Your task to perform on an android device: clear history in the chrome app Image 0: 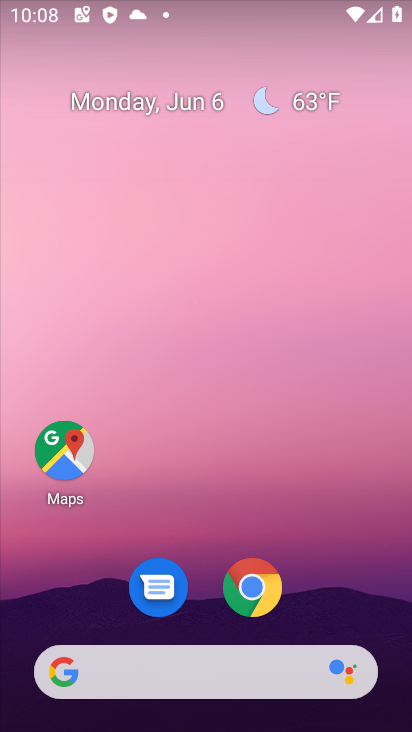
Step 0: drag from (193, 483) to (219, 287)
Your task to perform on an android device: clear history in the chrome app Image 1: 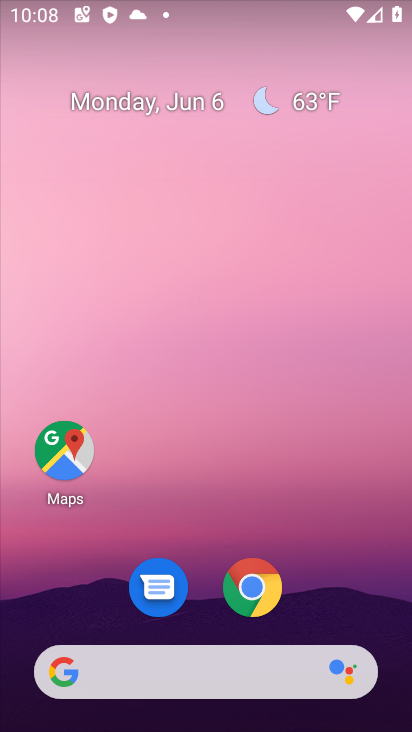
Step 1: click (251, 590)
Your task to perform on an android device: clear history in the chrome app Image 2: 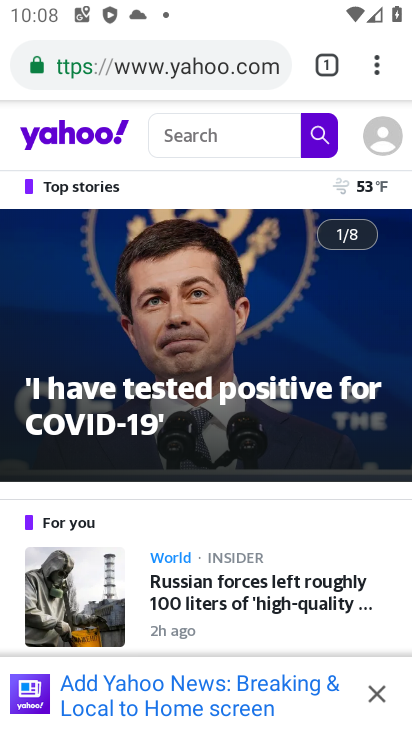
Step 2: click (377, 64)
Your task to perform on an android device: clear history in the chrome app Image 3: 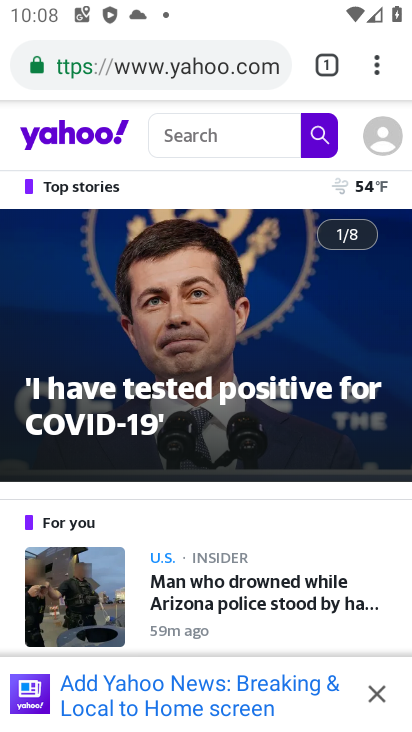
Step 3: click (383, 701)
Your task to perform on an android device: clear history in the chrome app Image 4: 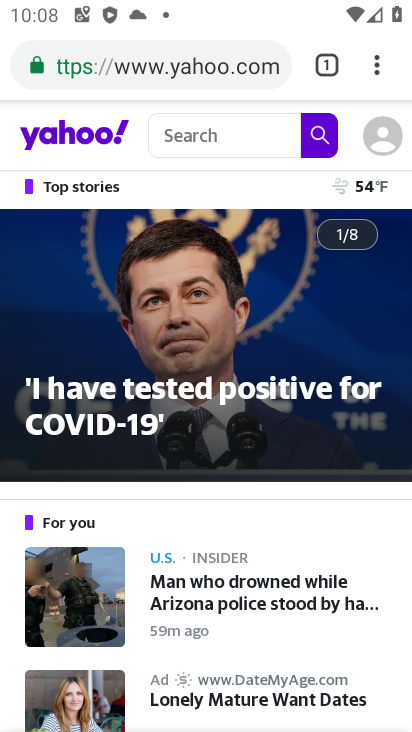
Step 4: drag from (243, 667) to (224, 326)
Your task to perform on an android device: clear history in the chrome app Image 5: 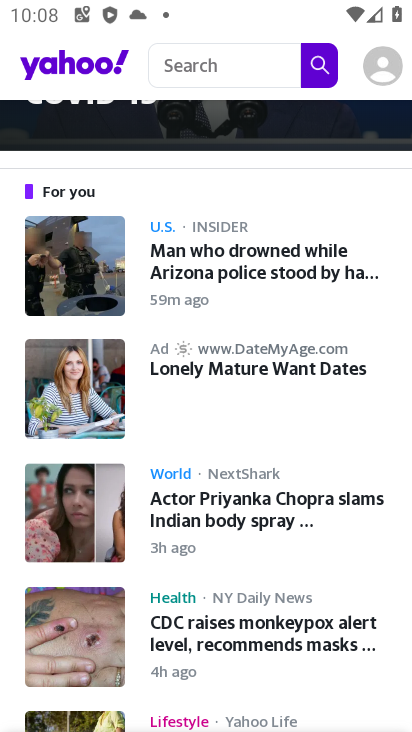
Step 5: drag from (312, 161) to (312, 611)
Your task to perform on an android device: clear history in the chrome app Image 6: 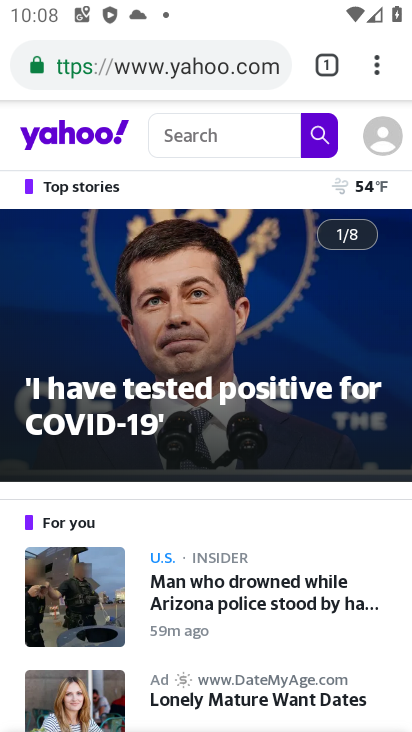
Step 6: click (375, 72)
Your task to perform on an android device: clear history in the chrome app Image 7: 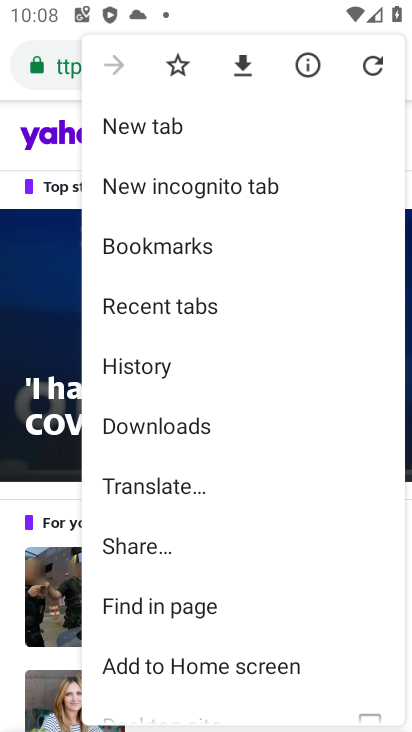
Step 7: drag from (202, 651) to (202, 233)
Your task to perform on an android device: clear history in the chrome app Image 8: 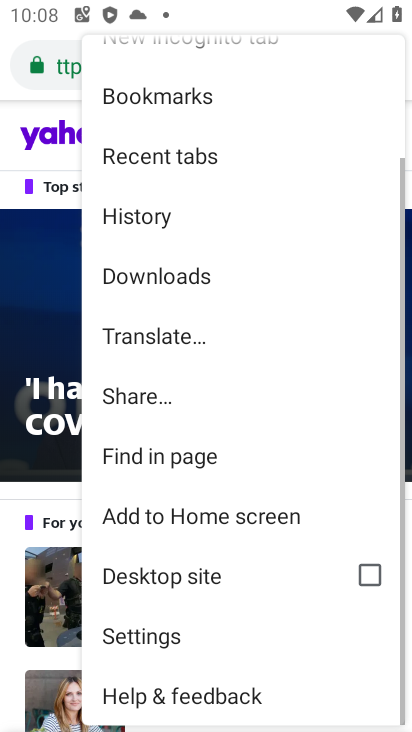
Step 8: click (140, 637)
Your task to perform on an android device: clear history in the chrome app Image 9: 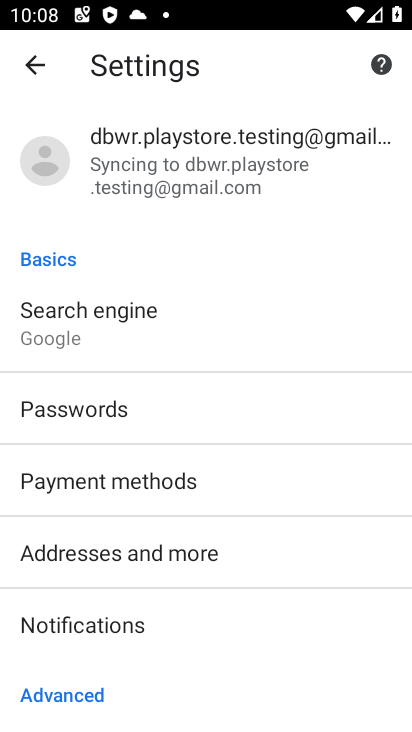
Step 9: drag from (198, 679) to (226, 299)
Your task to perform on an android device: clear history in the chrome app Image 10: 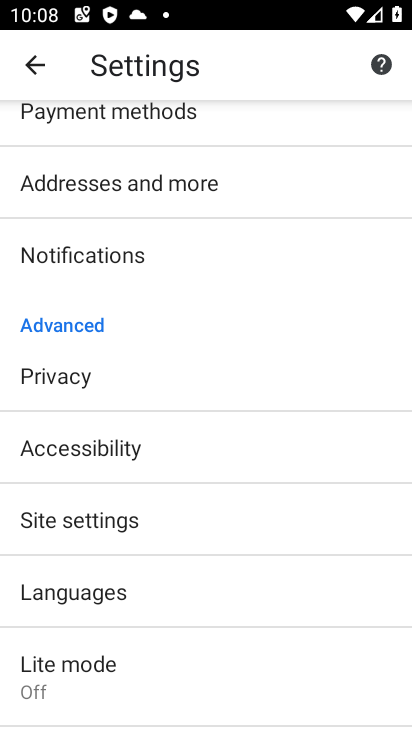
Step 10: click (87, 376)
Your task to perform on an android device: clear history in the chrome app Image 11: 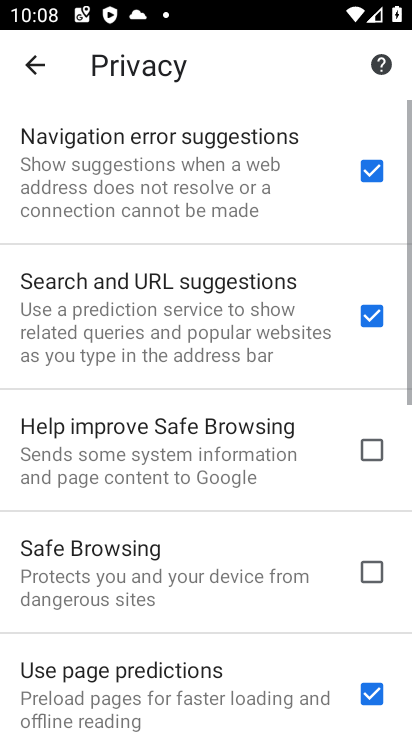
Step 11: drag from (194, 682) to (199, 338)
Your task to perform on an android device: clear history in the chrome app Image 12: 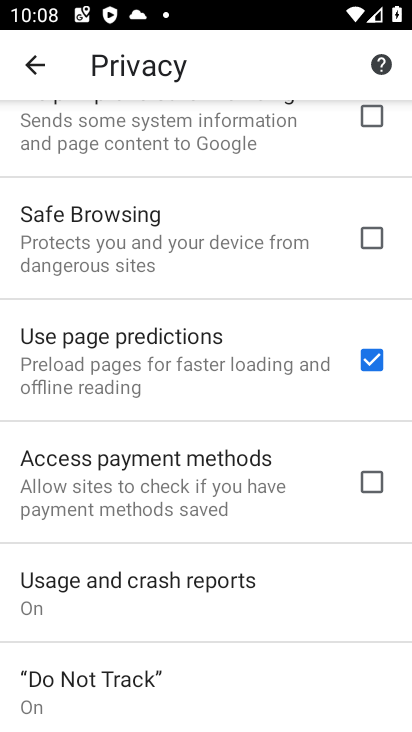
Step 12: click (127, 693)
Your task to perform on an android device: clear history in the chrome app Image 13: 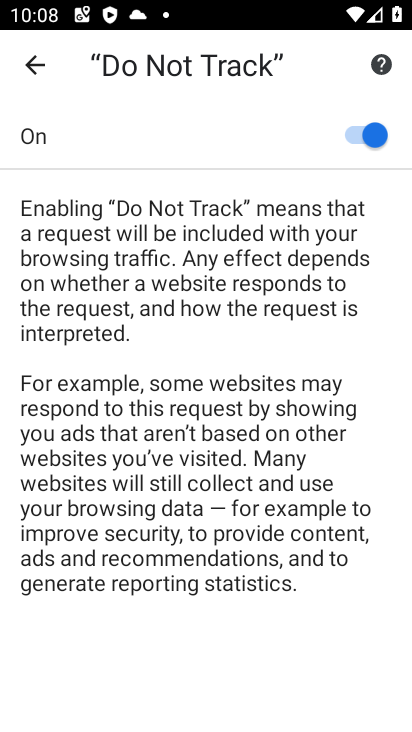
Step 13: click (33, 68)
Your task to perform on an android device: clear history in the chrome app Image 14: 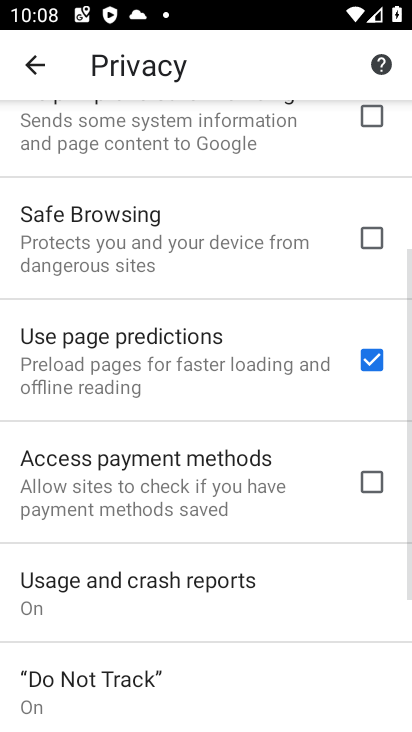
Step 14: drag from (166, 677) to (167, 270)
Your task to perform on an android device: clear history in the chrome app Image 15: 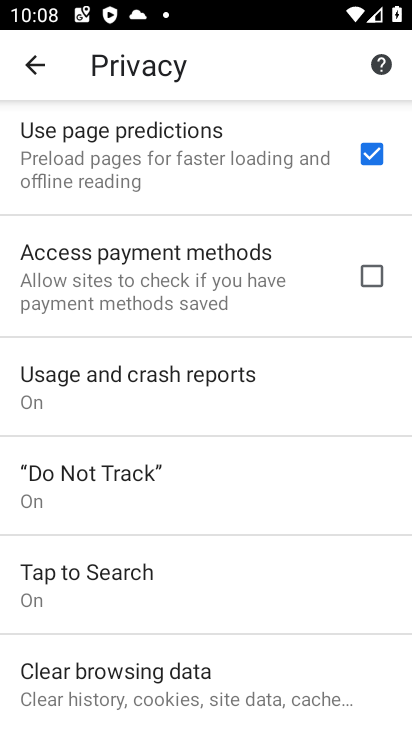
Step 15: click (203, 677)
Your task to perform on an android device: clear history in the chrome app Image 16: 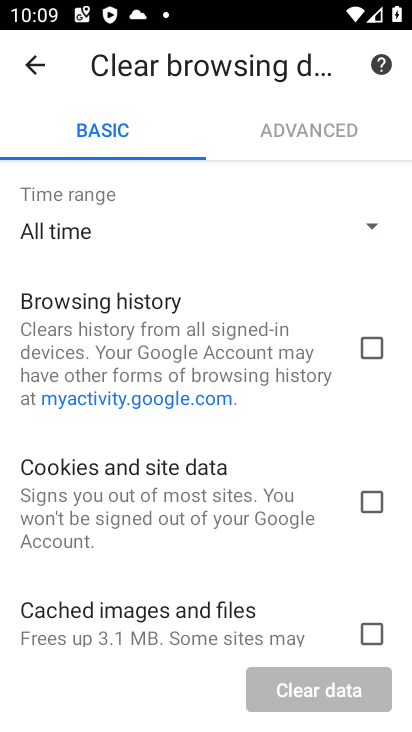
Step 16: click (364, 357)
Your task to perform on an android device: clear history in the chrome app Image 17: 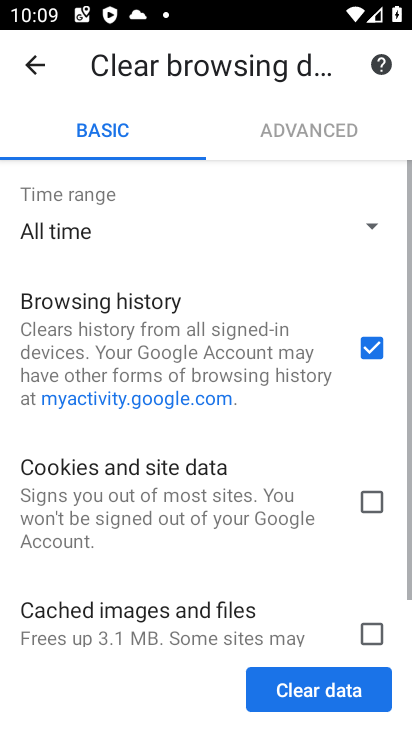
Step 17: click (378, 505)
Your task to perform on an android device: clear history in the chrome app Image 18: 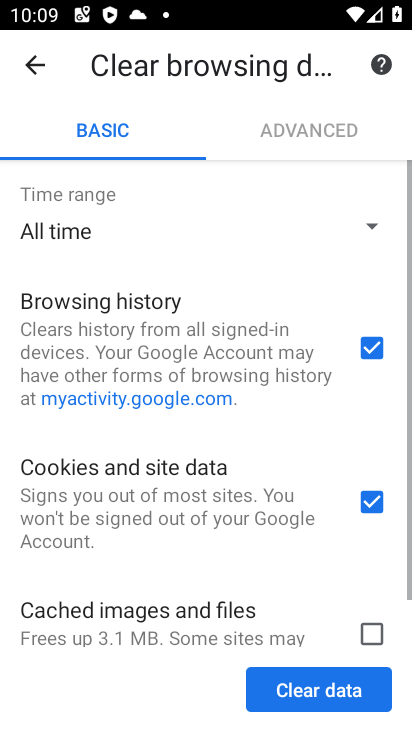
Step 18: click (367, 640)
Your task to perform on an android device: clear history in the chrome app Image 19: 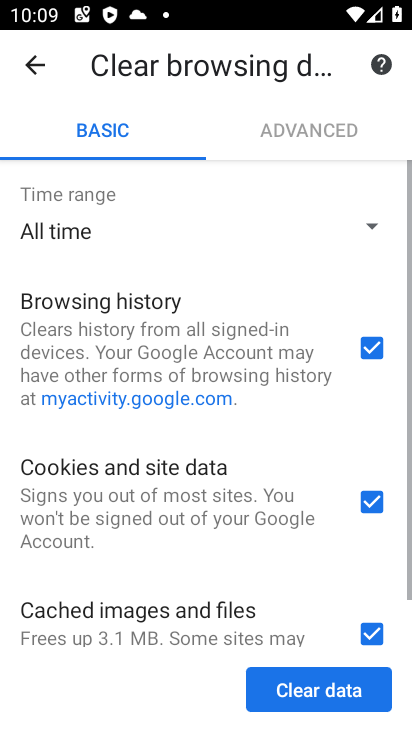
Step 19: click (337, 690)
Your task to perform on an android device: clear history in the chrome app Image 20: 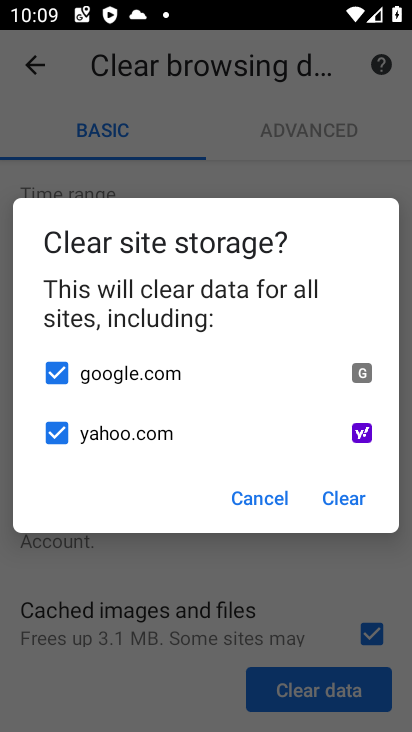
Step 20: click (339, 485)
Your task to perform on an android device: clear history in the chrome app Image 21: 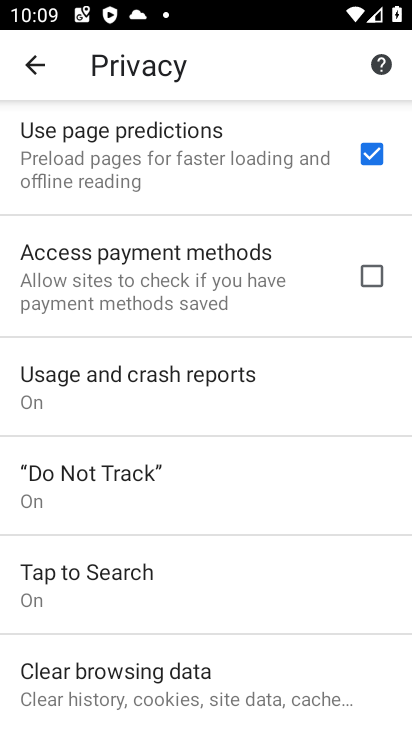
Step 21: task complete